Your task to perform on an android device: Open Android settings Image 0: 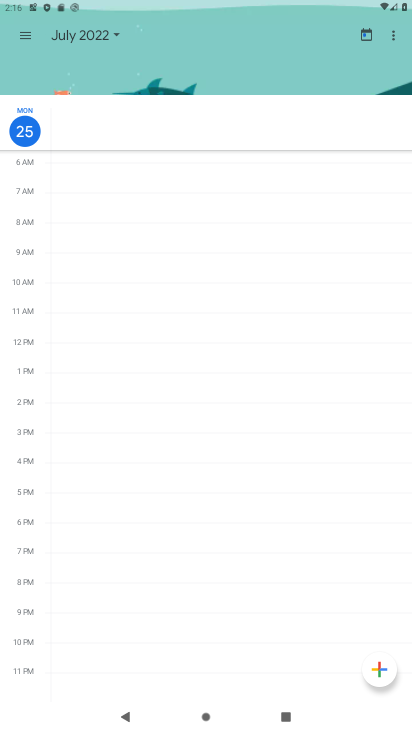
Step 0: press home button
Your task to perform on an android device: Open Android settings Image 1: 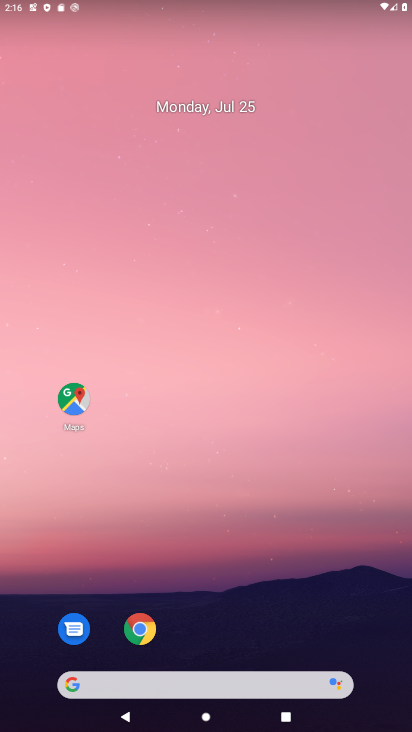
Step 1: drag from (243, 625) to (307, 9)
Your task to perform on an android device: Open Android settings Image 2: 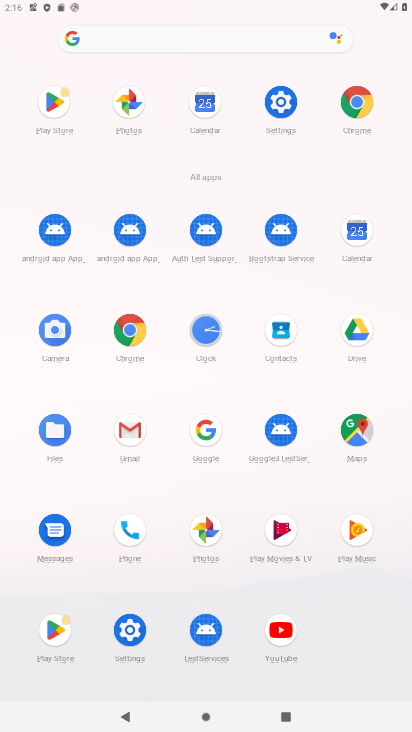
Step 2: click (123, 639)
Your task to perform on an android device: Open Android settings Image 3: 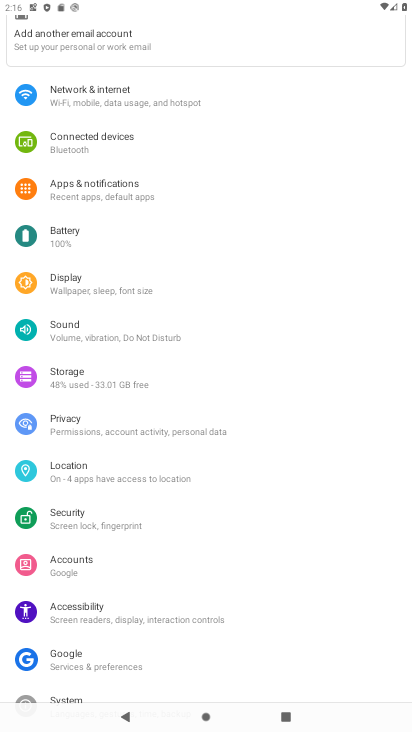
Step 3: drag from (84, 538) to (117, 221)
Your task to perform on an android device: Open Android settings Image 4: 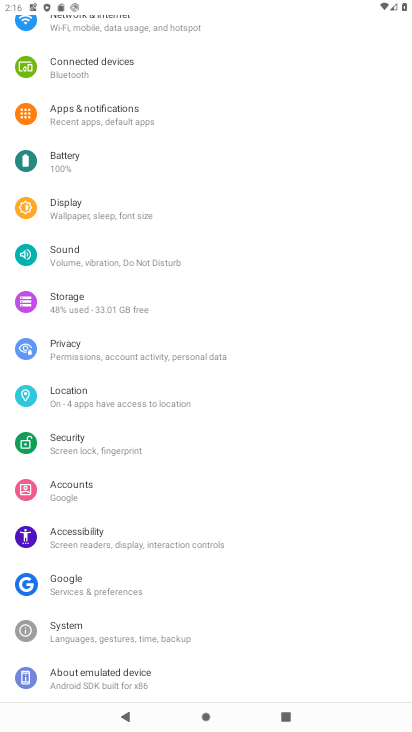
Step 4: click (111, 681)
Your task to perform on an android device: Open Android settings Image 5: 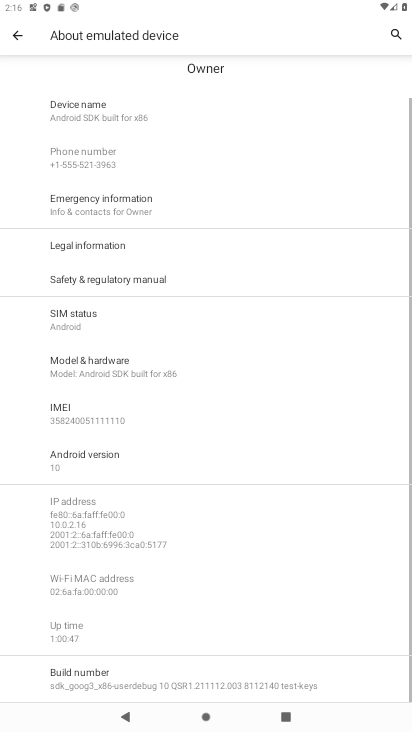
Step 5: click (98, 475)
Your task to perform on an android device: Open Android settings Image 6: 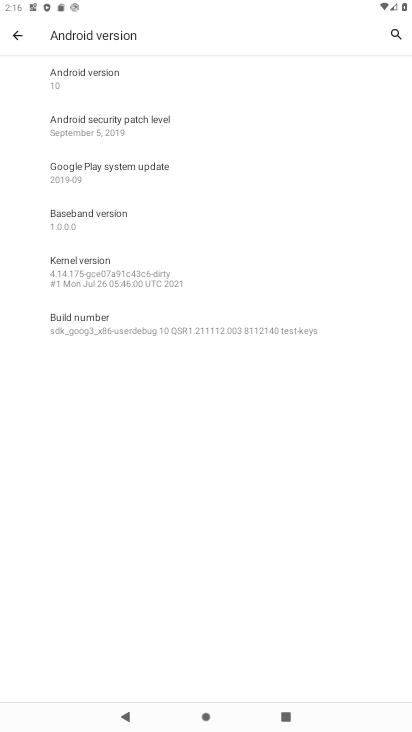
Step 6: task complete